Your task to perform on an android device: Open maps Image 0: 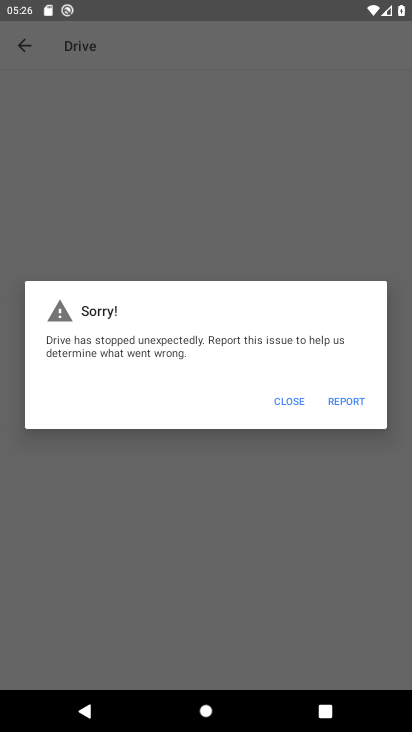
Step 0: press home button
Your task to perform on an android device: Open maps Image 1: 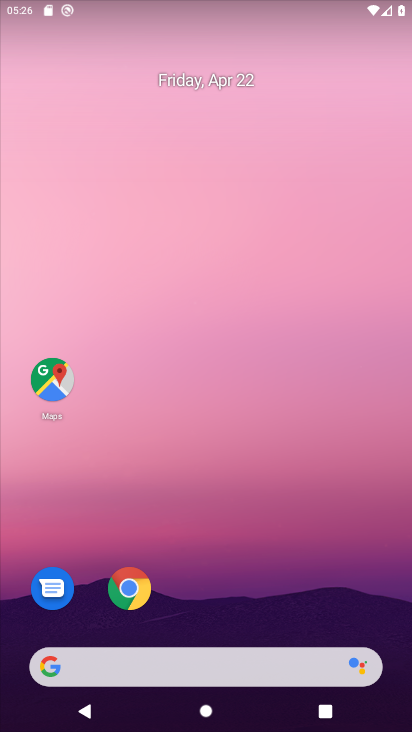
Step 1: click (49, 384)
Your task to perform on an android device: Open maps Image 2: 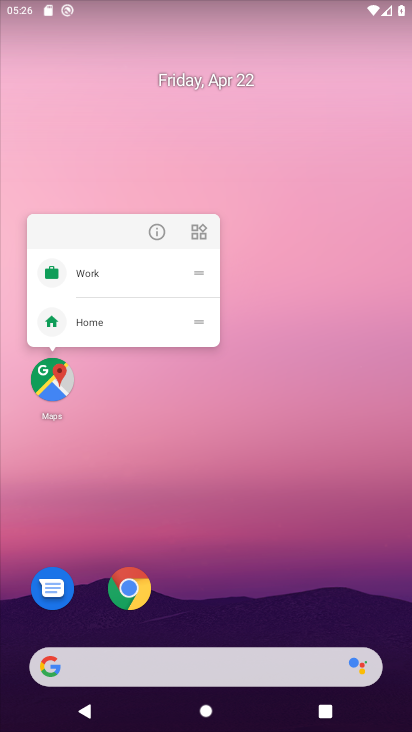
Step 2: click (56, 373)
Your task to perform on an android device: Open maps Image 3: 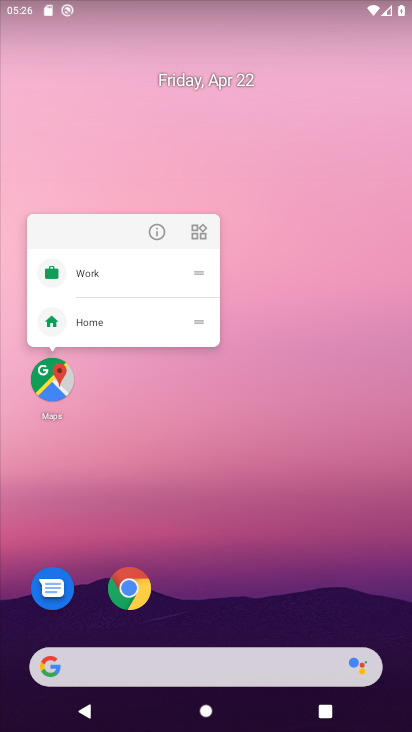
Step 3: click (56, 373)
Your task to perform on an android device: Open maps Image 4: 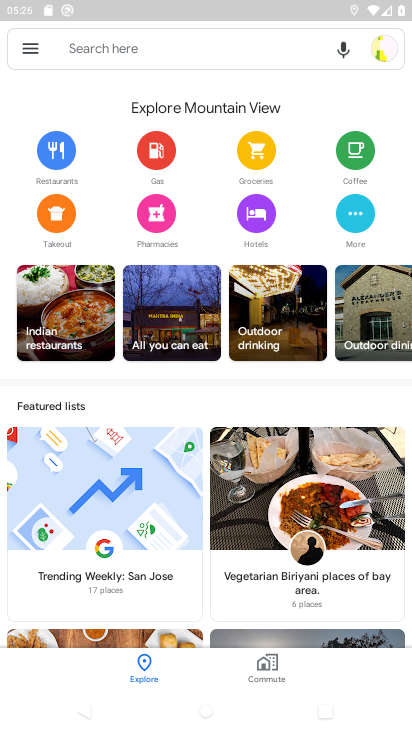
Step 4: task complete